Your task to perform on an android device: turn on airplane mode Image 0: 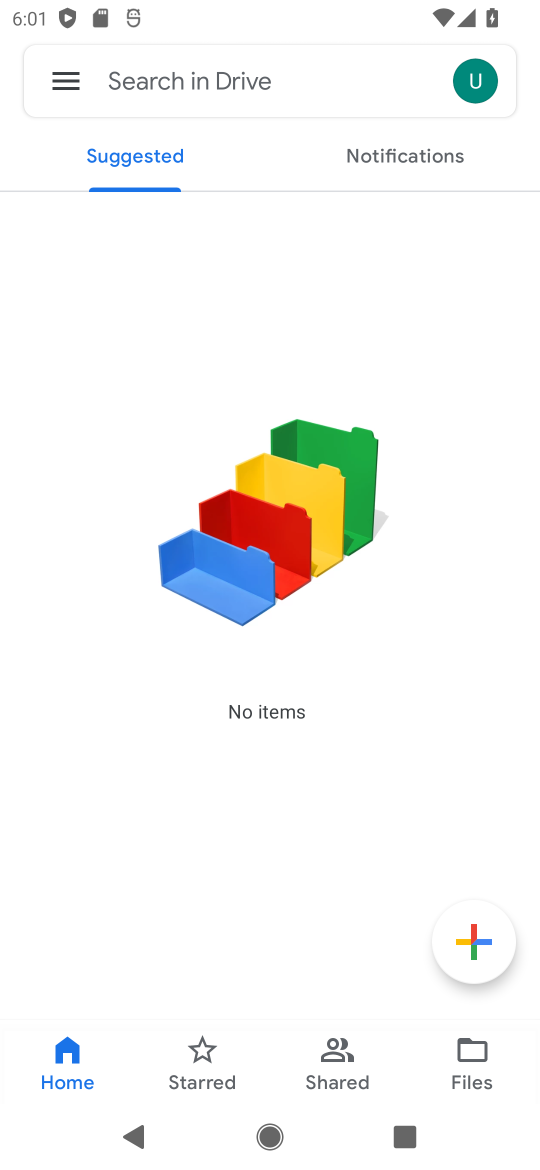
Step 0: press home button
Your task to perform on an android device: turn on airplane mode Image 1: 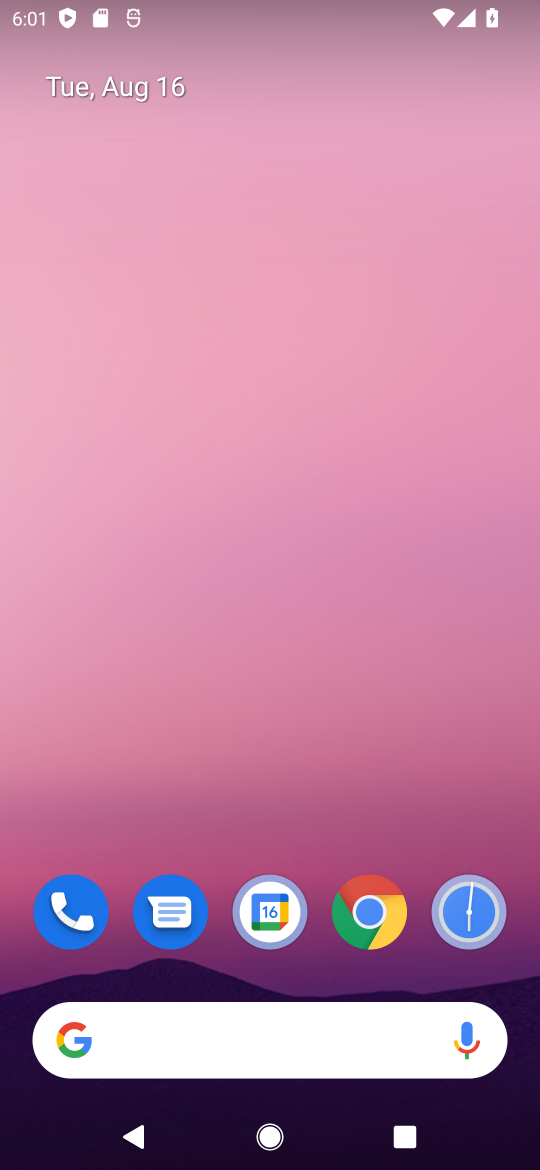
Step 1: drag from (418, 968) to (359, 139)
Your task to perform on an android device: turn on airplane mode Image 2: 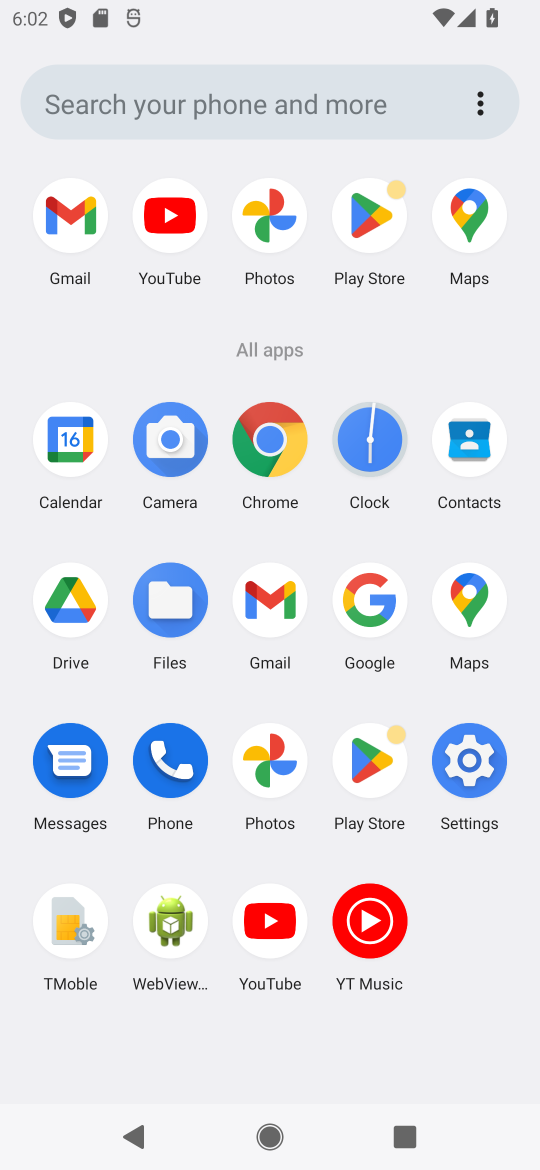
Step 2: click (471, 763)
Your task to perform on an android device: turn on airplane mode Image 3: 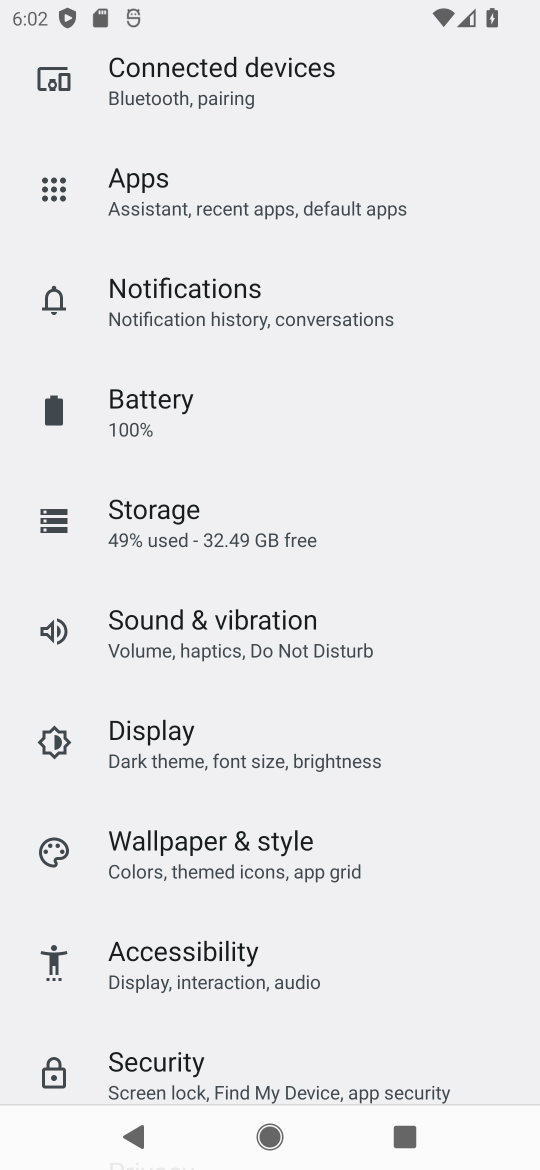
Step 3: drag from (431, 221) to (435, 591)
Your task to perform on an android device: turn on airplane mode Image 4: 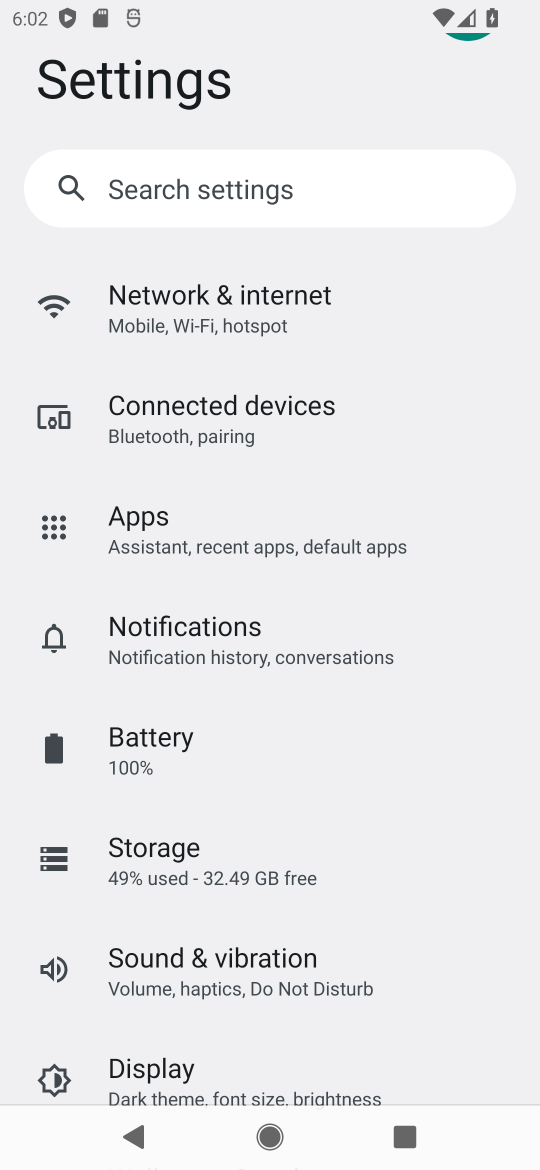
Step 4: click (162, 302)
Your task to perform on an android device: turn on airplane mode Image 5: 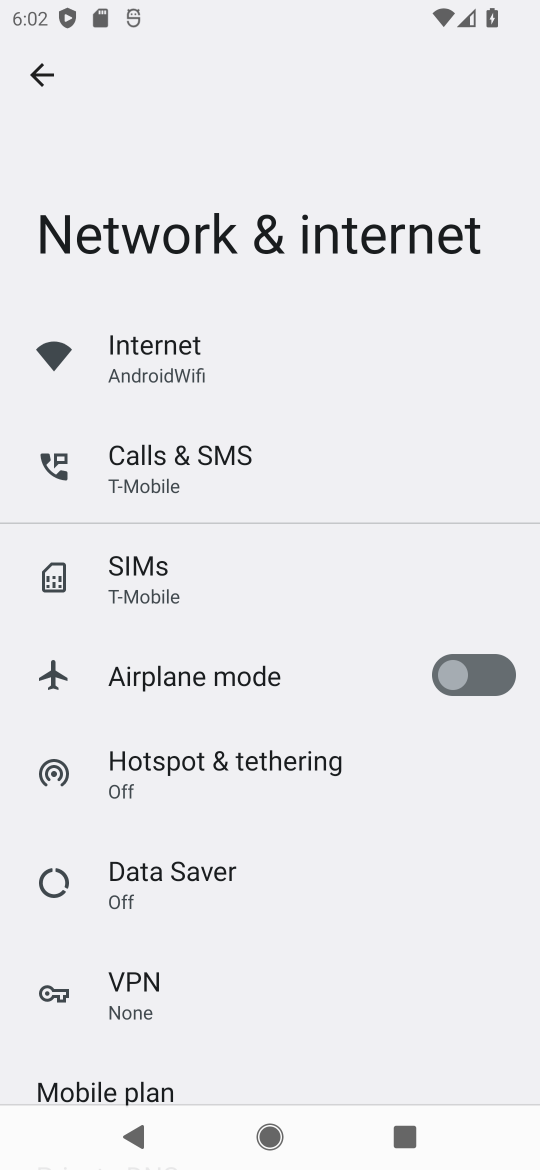
Step 5: click (502, 673)
Your task to perform on an android device: turn on airplane mode Image 6: 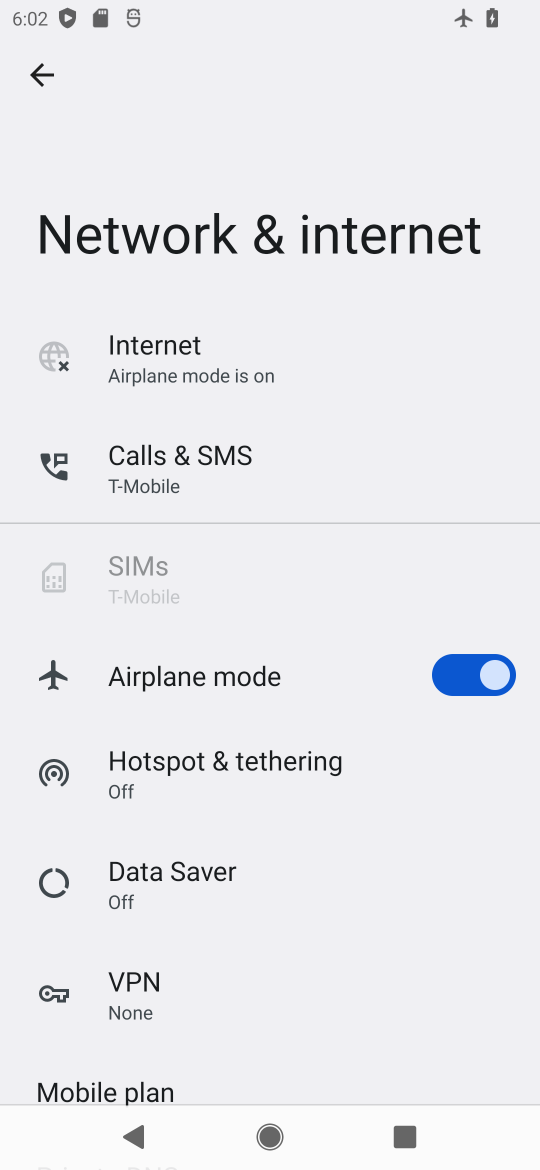
Step 6: task complete